Your task to perform on an android device: turn off data saver in the chrome app Image 0: 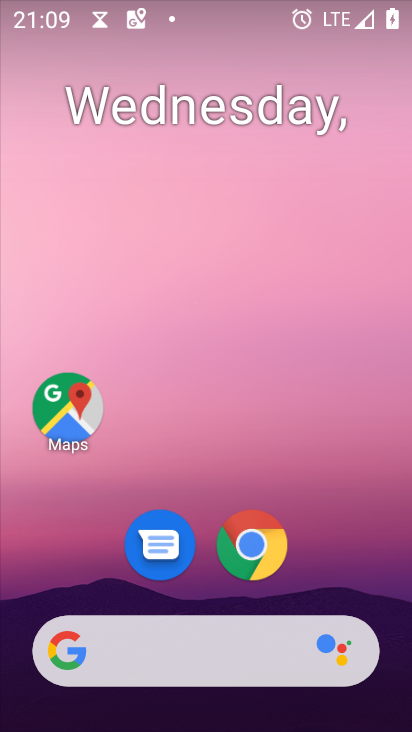
Step 0: press home button
Your task to perform on an android device: turn off data saver in the chrome app Image 1: 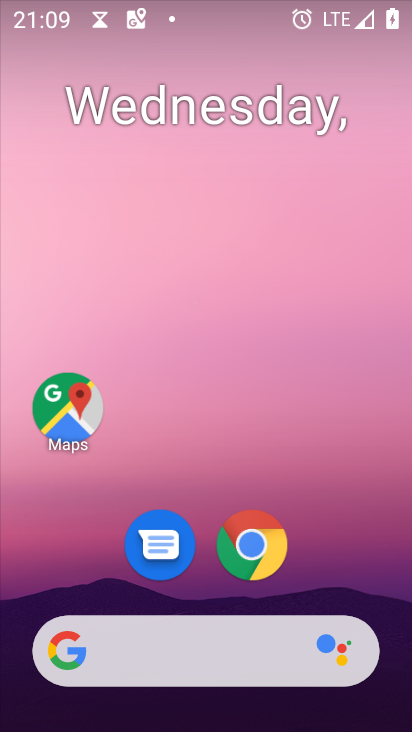
Step 1: click (244, 554)
Your task to perform on an android device: turn off data saver in the chrome app Image 2: 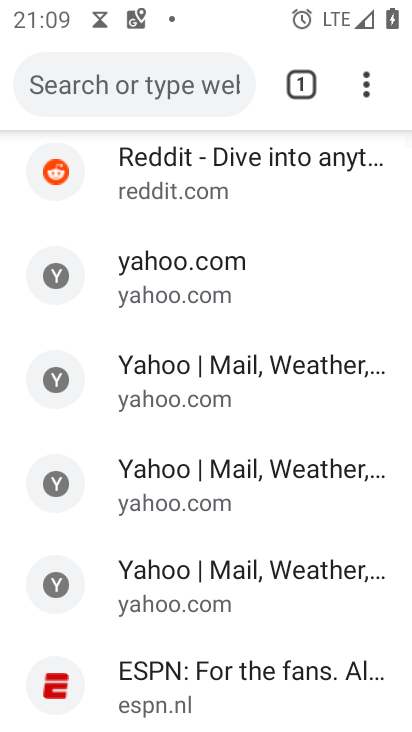
Step 2: drag from (361, 84) to (195, 579)
Your task to perform on an android device: turn off data saver in the chrome app Image 3: 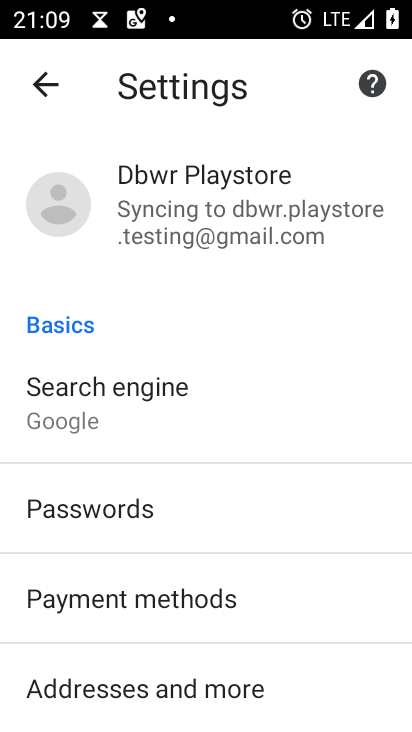
Step 3: drag from (249, 665) to (325, 180)
Your task to perform on an android device: turn off data saver in the chrome app Image 4: 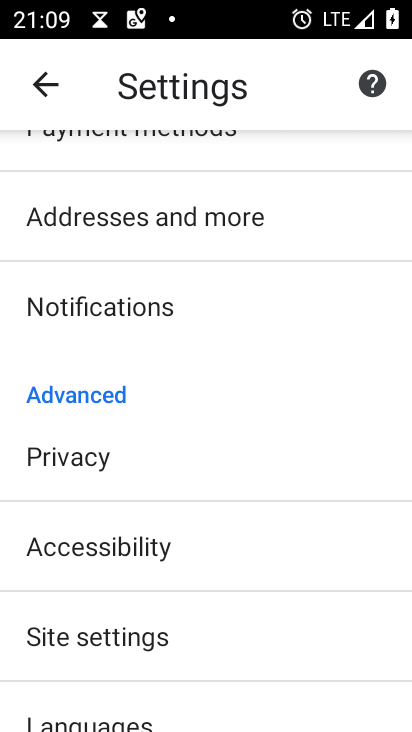
Step 4: drag from (189, 630) to (297, 309)
Your task to perform on an android device: turn off data saver in the chrome app Image 5: 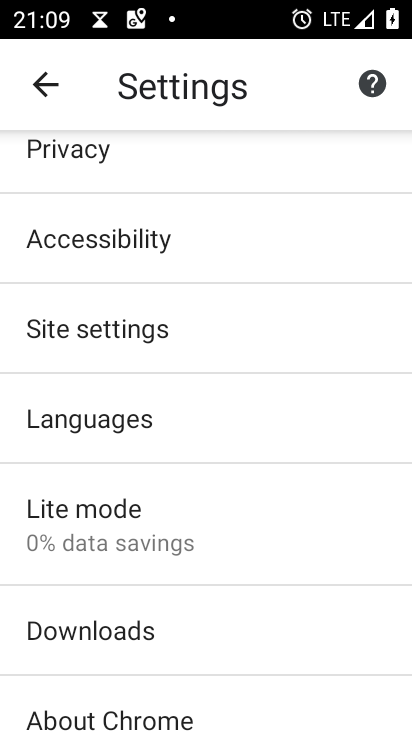
Step 5: click (106, 520)
Your task to perform on an android device: turn off data saver in the chrome app Image 6: 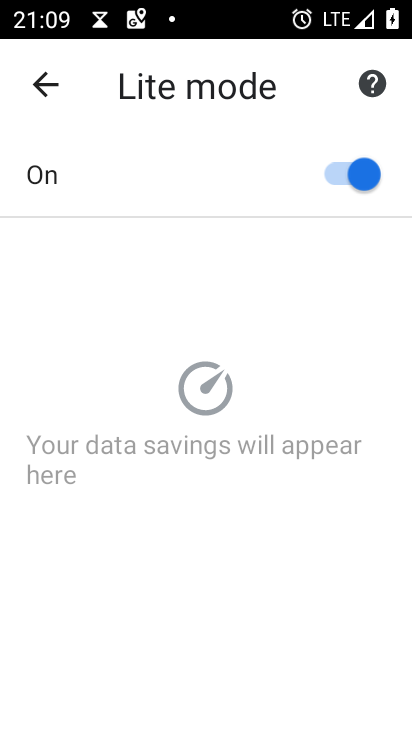
Step 6: click (339, 172)
Your task to perform on an android device: turn off data saver in the chrome app Image 7: 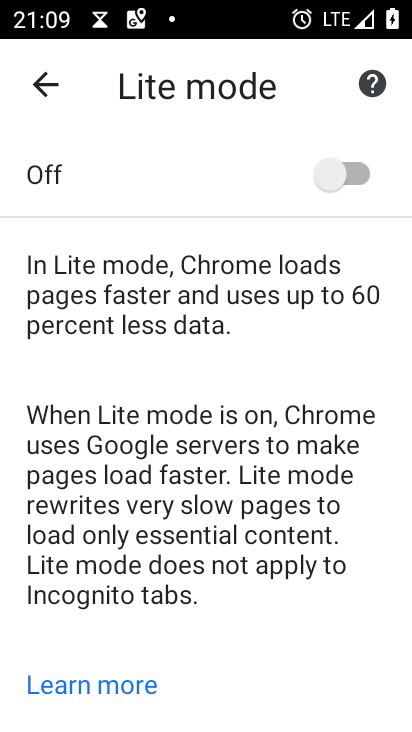
Step 7: task complete